Your task to perform on an android device: Clear the shopping cart on costco. Add "logitech g903" to the cart on costco Image 0: 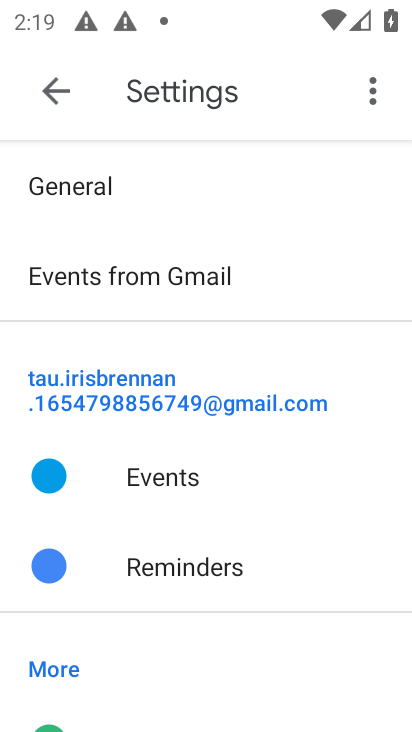
Step 0: press home button
Your task to perform on an android device: Clear the shopping cart on costco. Add "logitech g903" to the cart on costco Image 1: 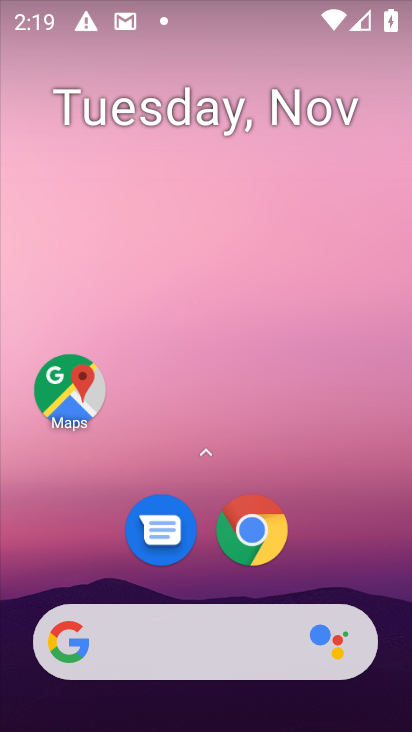
Step 1: drag from (260, 700) to (271, 52)
Your task to perform on an android device: Clear the shopping cart on costco. Add "logitech g903" to the cart on costco Image 2: 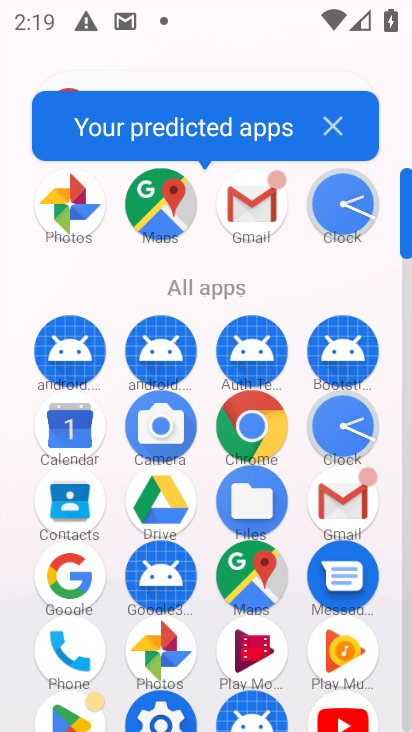
Step 2: click (253, 423)
Your task to perform on an android device: Clear the shopping cart on costco. Add "logitech g903" to the cart on costco Image 3: 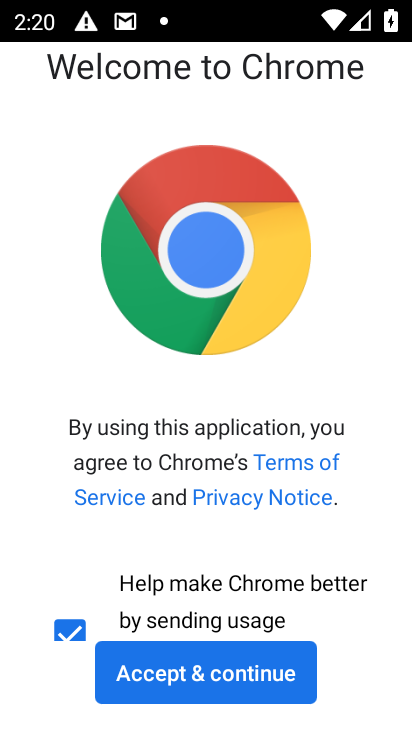
Step 3: click (275, 659)
Your task to perform on an android device: Clear the shopping cart on costco. Add "logitech g903" to the cart on costco Image 4: 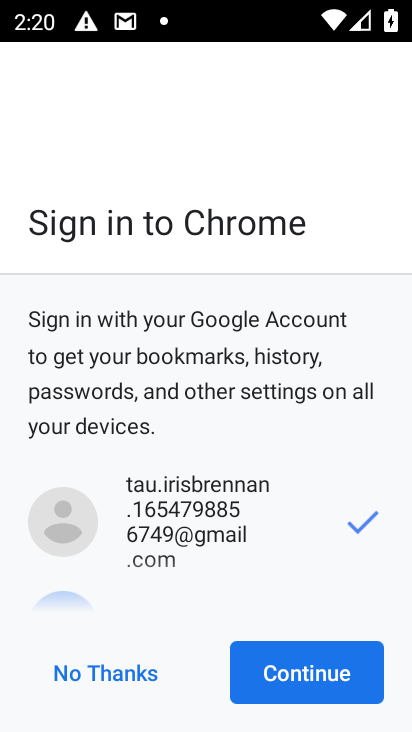
Step 4: click (334, 668)
Your task to perform on an android device: Clear the shopping cart on costco. Add "logitech g903" to the cart on costco Image 5: 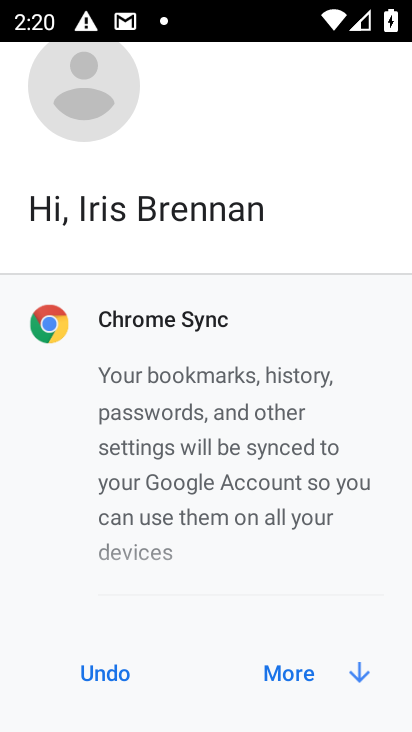
Step 5: click (302, 672)
Your task to perform on an android device: Clear the shopping cart on costco. Add "logitech g903" to the cart on costco Image 6: 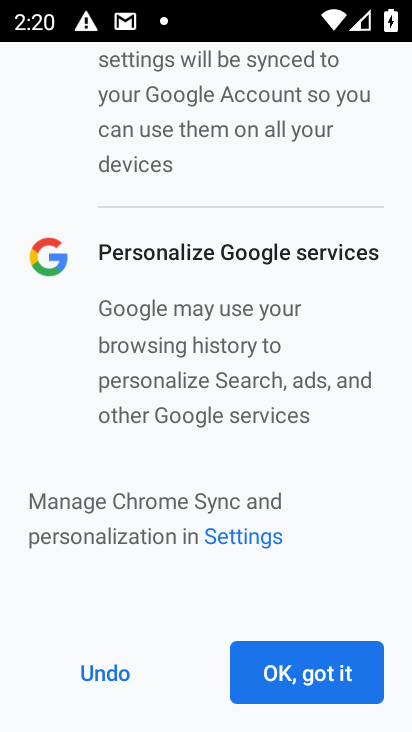
Step 6: click (319, 672)
Your task to perform on an android device: Clear the shopping cart on costco. Add "logitech g903" to the cart on costco Image 7: 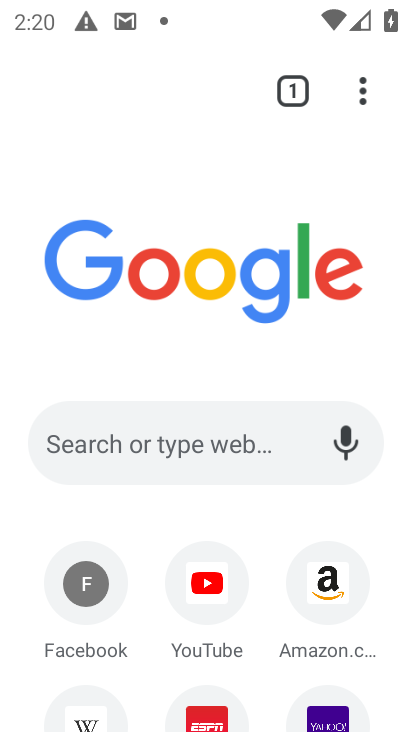
Step 7: click (199, 440)
Your task to perform on an android device: Clear the shopping cart on costco. Add "logitech g903" to the cart on costco Image 8: 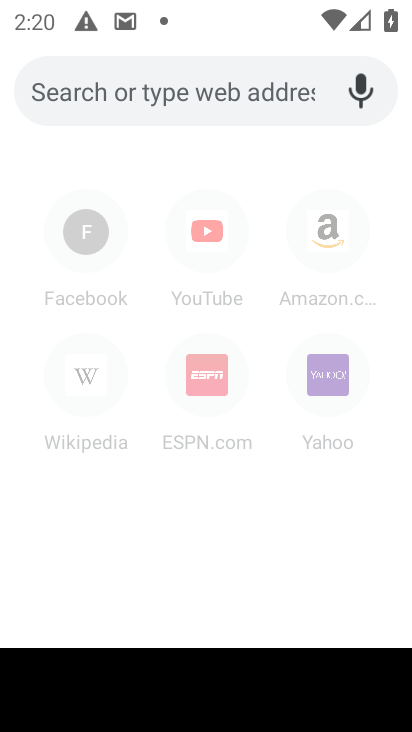
Step 8: type "costco"
Your task to perform on an android device: Clear the shopping cart on costco. Add "logitech g903" to the cart on costco Image 9: 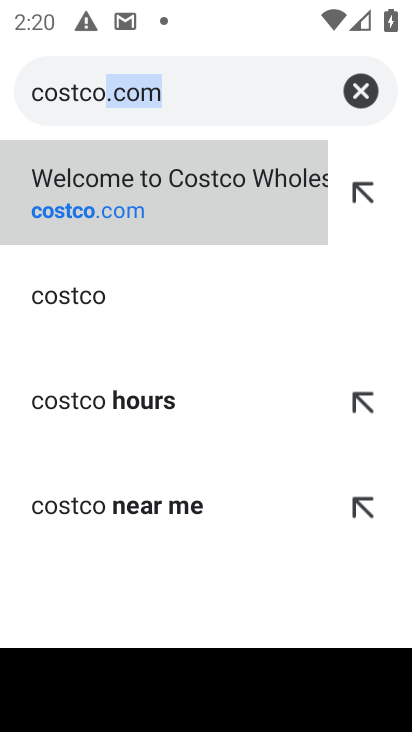
Step 9: click (92, 208)
Your task to perform on an android device: Clear the shopping cart on costco. Add "logitech g903" to the cart on costco Image 10: 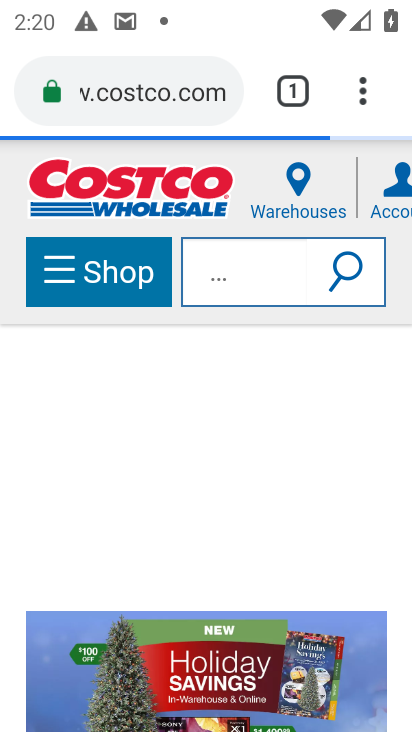
Step 10: drag from (279, 600) to (218, 666)
Your task to perform on an android device: Clear the shopping cart on costco. Add "logitech g903" to the cart on costco Image 11: 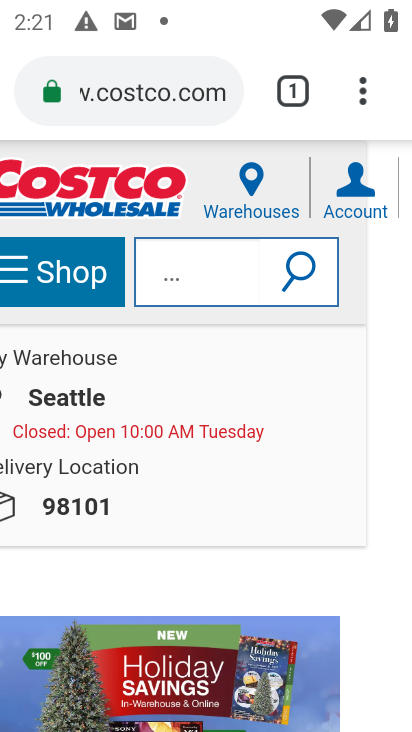
Step 11: click (234, 277)
Your task to perform on an android device: Clear the shopping cart on costco. Add "logitech g903" to the cart on costco Image 12: 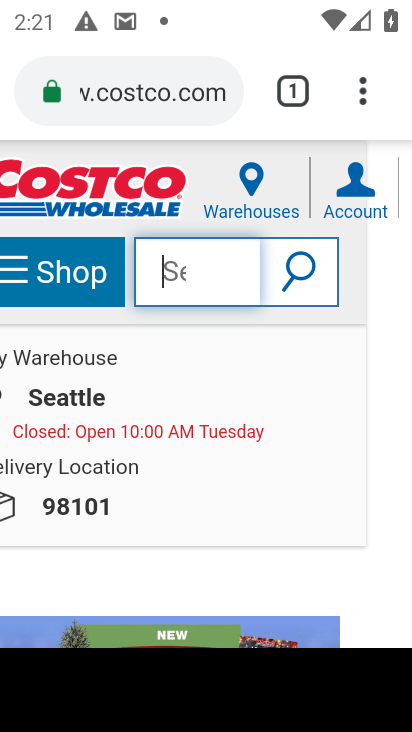
Step 12: type "logitech g903"
Your task to perform on an android device: Clear the shopping cart on costco. Add "logitech g903" to the cart on costco Image 13: 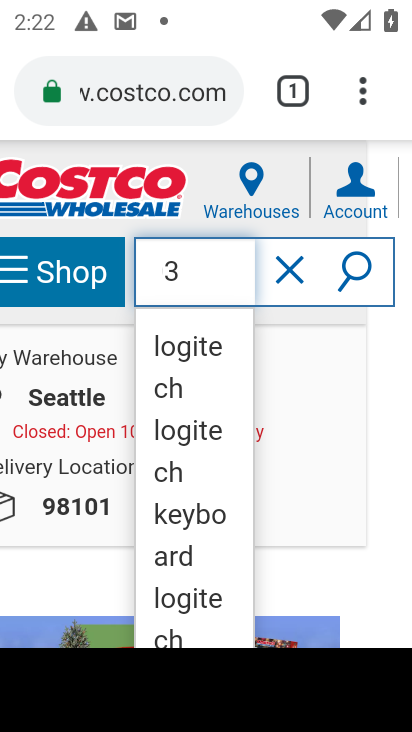
Step 13: click (191, 349)
Your task to perform on an android device: Clear the shopping cart on costco. Add "logitech g903" to the cart on costco Image 14: 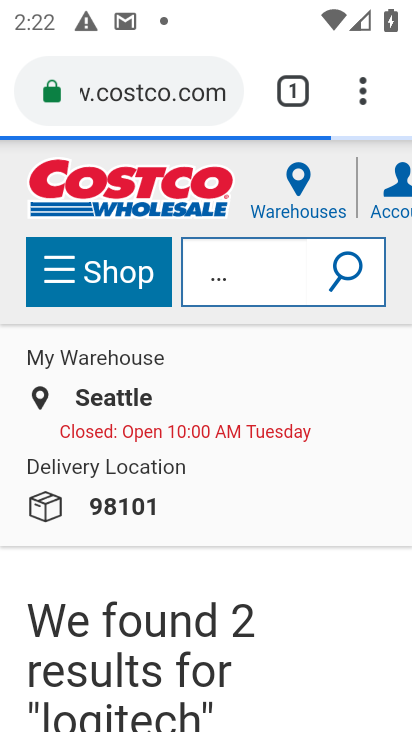
Step 14: drag from (290, 658) to (326, 337)
Your task to perform on an android device: Clear the shopping cart on costco. Add "logitech g903" to the cart on costco Image 15: 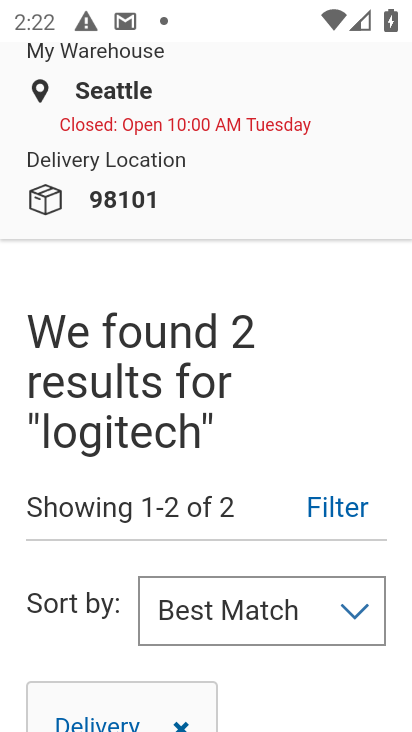
Step 15: drag from (198, 525) to (232, 136)
Your task to perform on an android device: Clear the shopping cart on costco. Add "logitech g903" to the cart on costco Image 16: 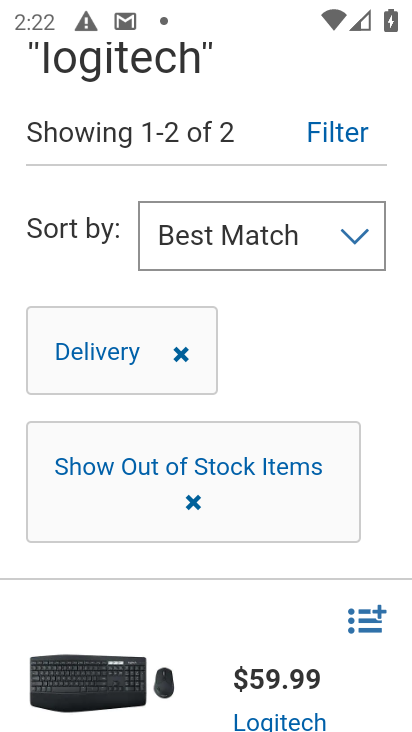
Step 16: drag from (195, 610) to (258, 179)
Your task to perform on an android device: Clear the shopping cart on costco. Add "logitech g903" to the cart on costco Image 17: 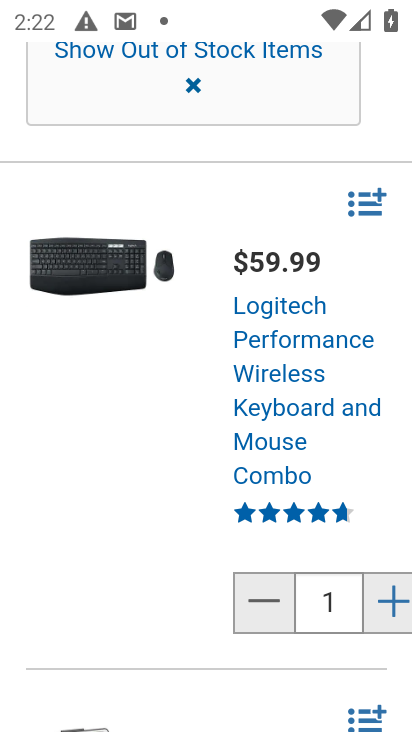
Step 17: click (137, 327)
Your task to perform on an android device: Clear the shopping cart on costco. Add "logitech g903" to the cart on costco Image 18: 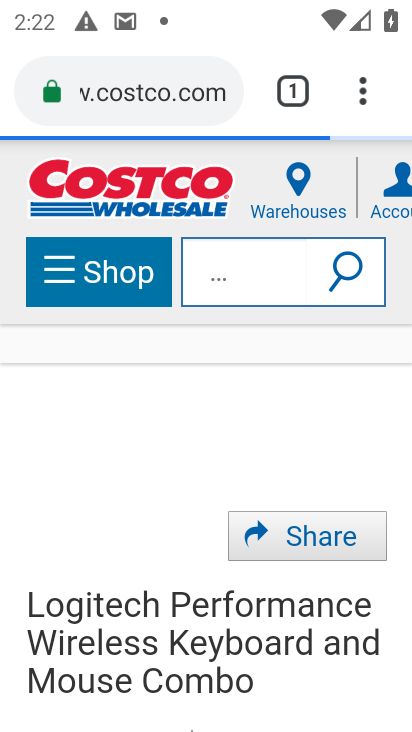
Step 18: task complete